Your task to perform on an android device: open the mobile data screen to see how much data has been used Image 0: 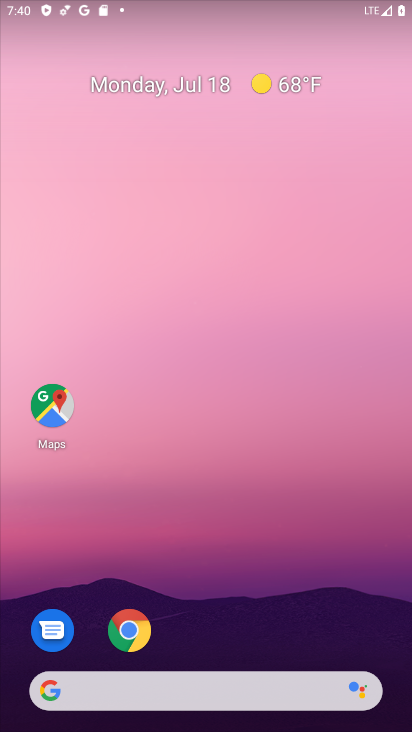
Step 0: press home button
Your task to perform on an android device: open the mobile data screen to see how much data has been used Image 1: 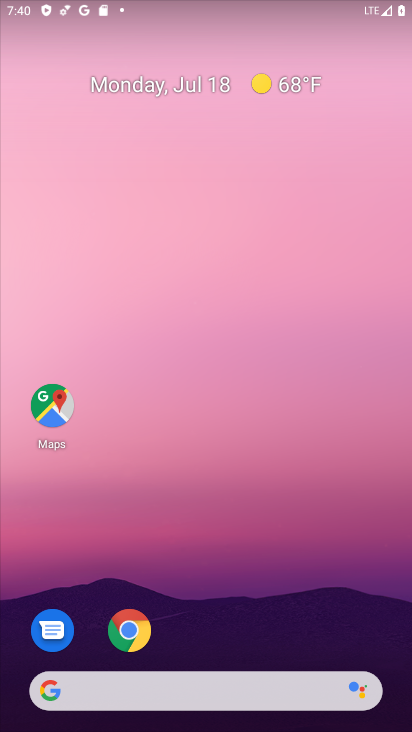
Step 1: drag from (192, 586) to (296, 93)
Your task to perform on an android device: open the mobile data screen to see how much data has been used Image 2: 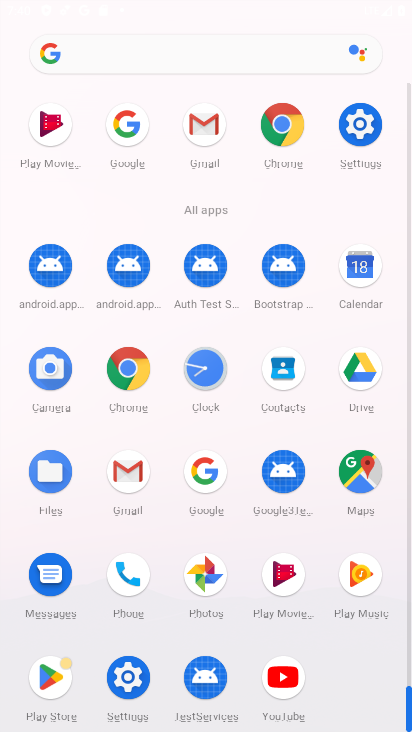
Step 2: click (351, 133)
Your task to perform on an android device: open the mobile data screen to see how much data has been used Image 3: 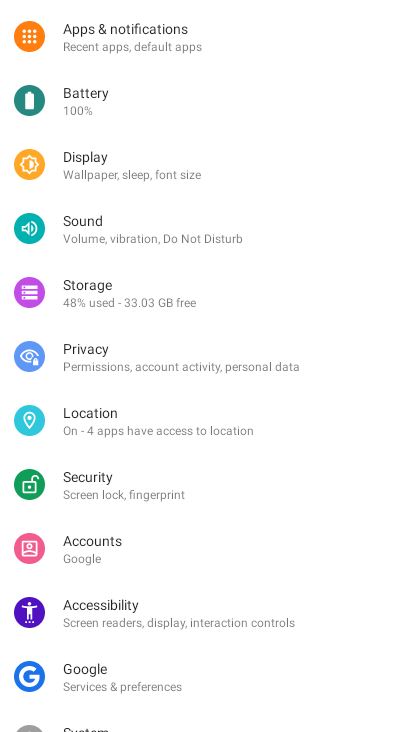
Step 3: drag from (259, 361) to (263, 587)
Your task to perform on an android device: open the mobile data screen to see how much data has been used Image 4: 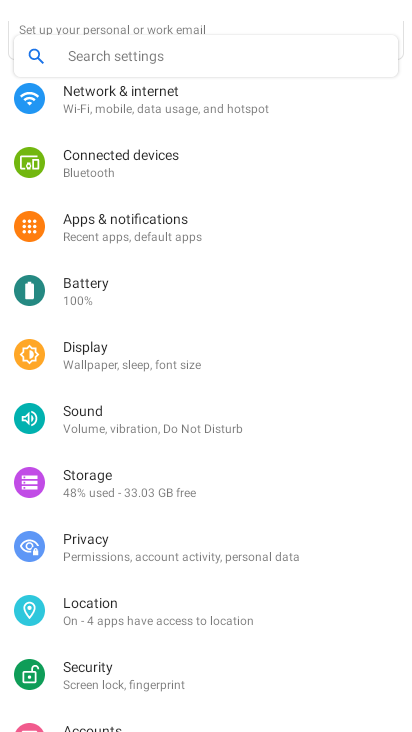
Step 4: drag from (213, 230) to (213, 594)
Your task to perform on an android device: open the mobile data screen to see how much data has been used Image 5: 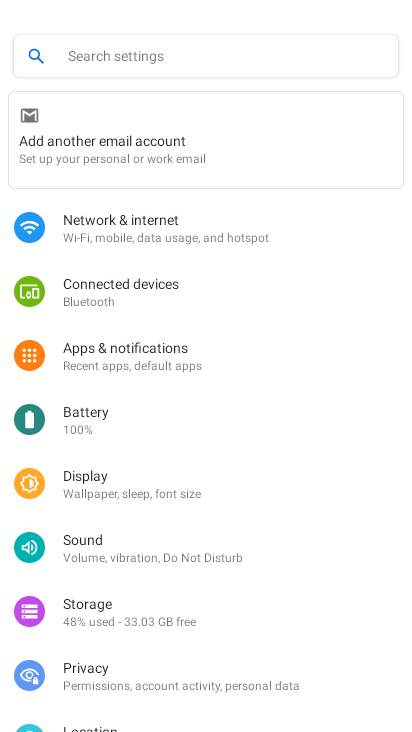
Step 5: click (217, 243)
Your task to perform on an android device: open the mobile data screen to see how much data has been used Image 6: 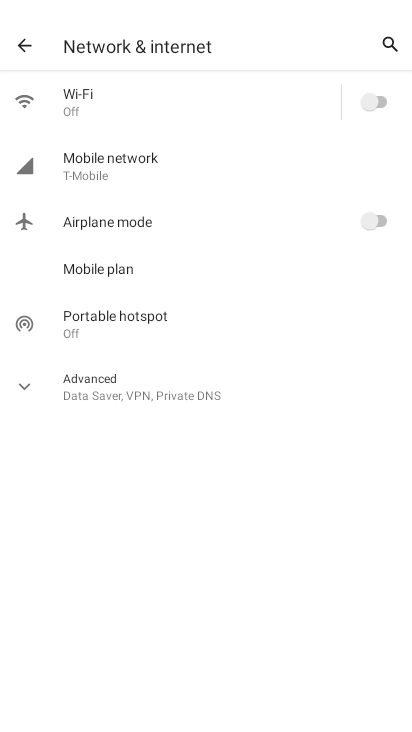
Step 6: click (182, 171)
Your task to perform on an android device: open the mobile data screen to see how much data has been used Image 7: 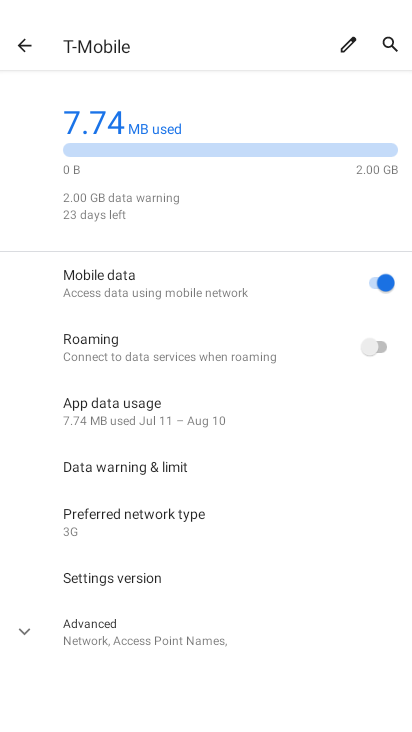
Step 7: click (166, 425)
Your task to perform on an android device: open the mobile data screen to see how much data has been used Image 8: 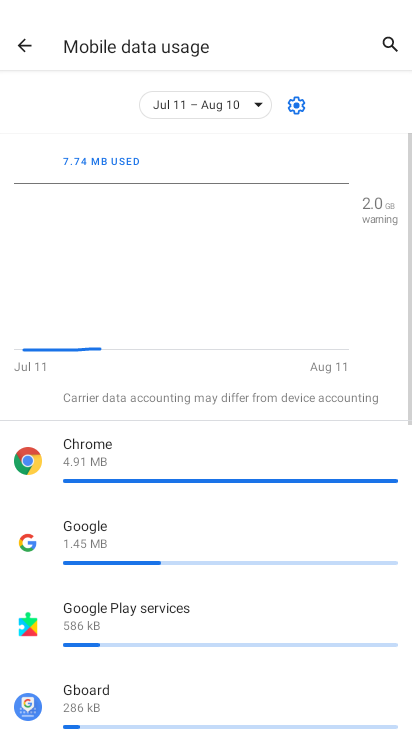
Step 8: task complete